Your task to perform on an android device: Open accessibility settings Image 0: 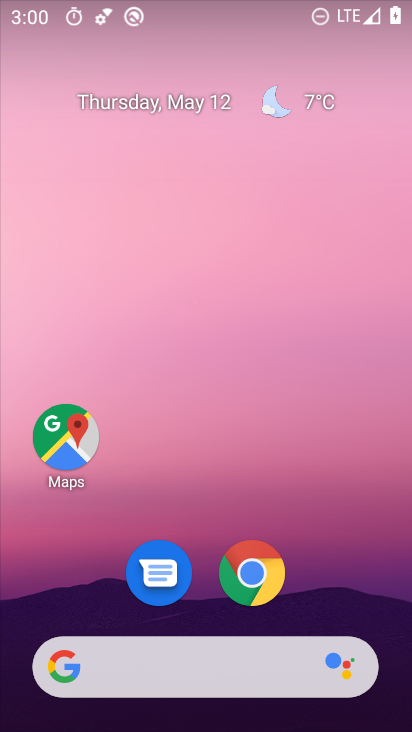
Step 0: drag from (285, 568) to (109, 138)
Your task to perform on an android device: Open accessibility settings Image 1: 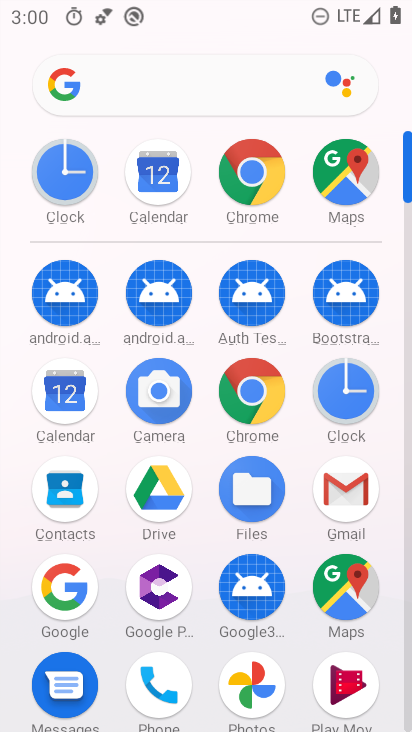
Step 1: drag from (283, 224) to (331, 621)
Your task to perform on an android device: Open accessibility settings Image 2: 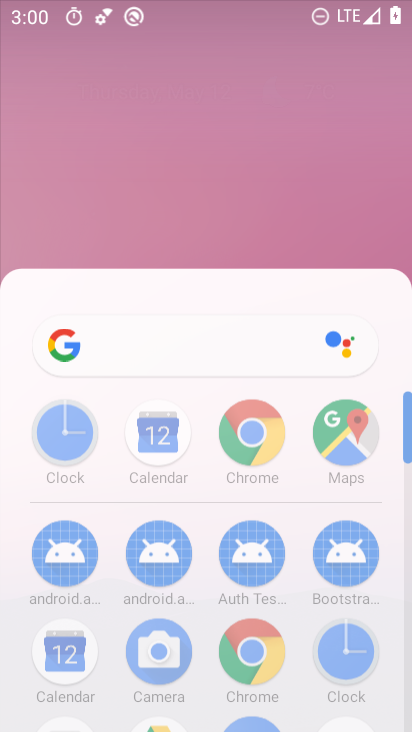
Step 2: drag from (267, 338) to (324, 629)
Your task to perform on an android device: Open accessibility settings Image 3: 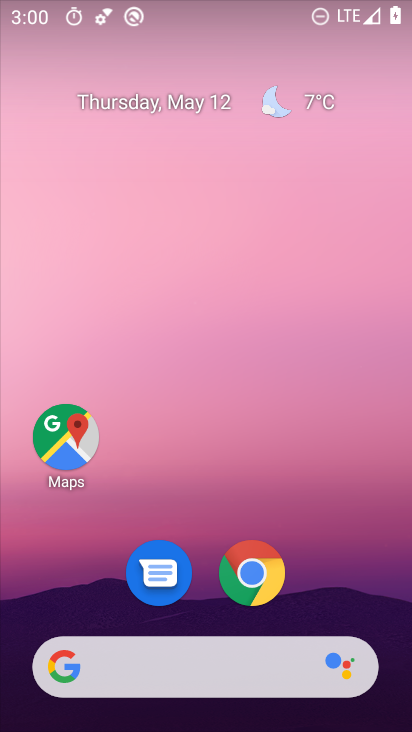
Step 3: drag from (322, 641) to (222, 111)
Your task to perform on an android device: Open accessibility settings Image 4: 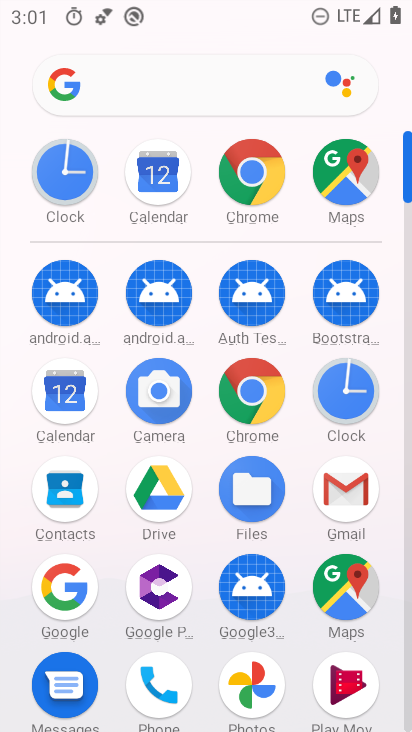
Step 4: drag from (284, 479) to (258, 163)
Your task to perform on an android device: Open accessibility settings Image 5: 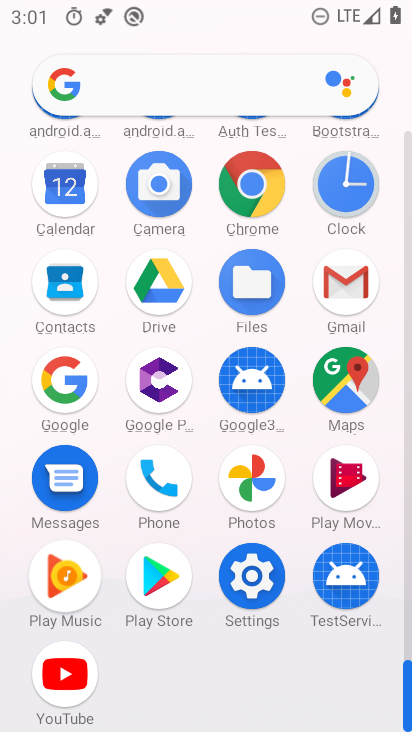
Step 5: drag from (282, 496) to (231, 242)
Your task to perform on an android device: Open accessibility settings Image 6: 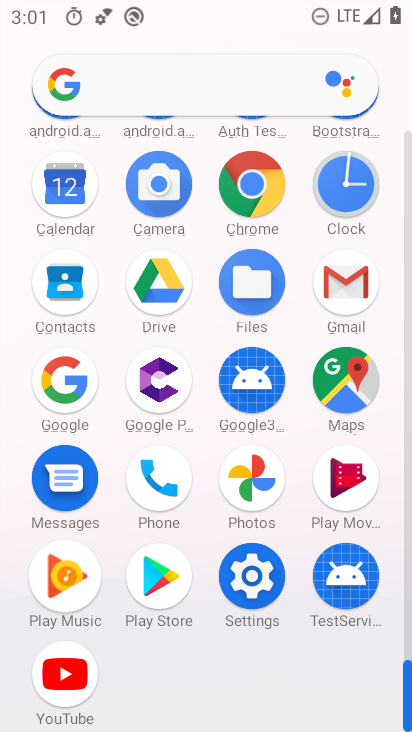
Step 6: click (259, 584)
Your task to perform on an android device: Open accessibility settings Image 7: 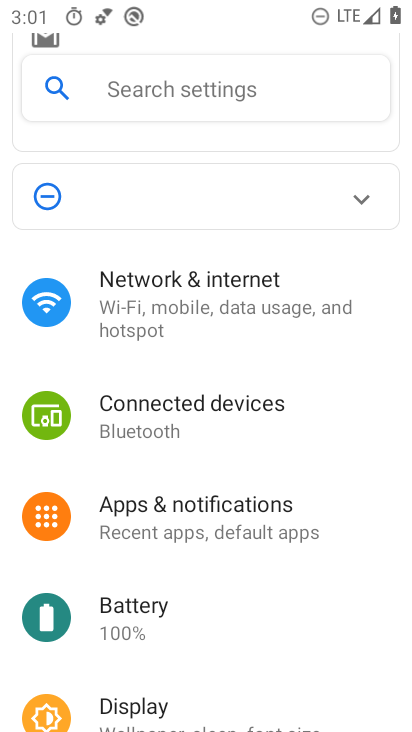
Step 7: drag from (221, 569) to (187, 95)
Your task to perform on an android device: Open accessibility settings Image 8: 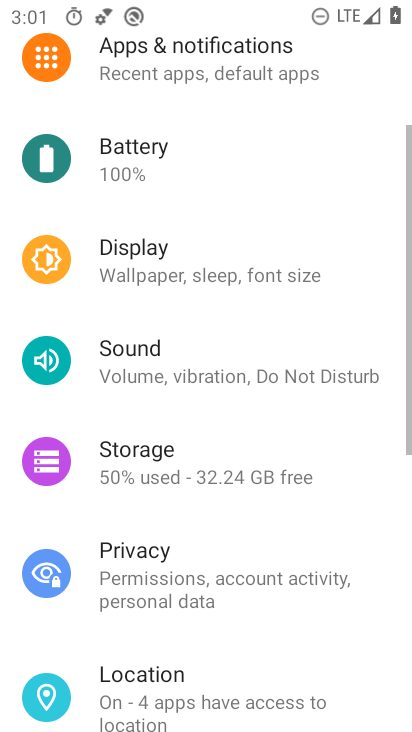
Step 8: drag from (230, 289) to (227, 175)
Your task to perform on an android device: Open accessibility settings Image 9: 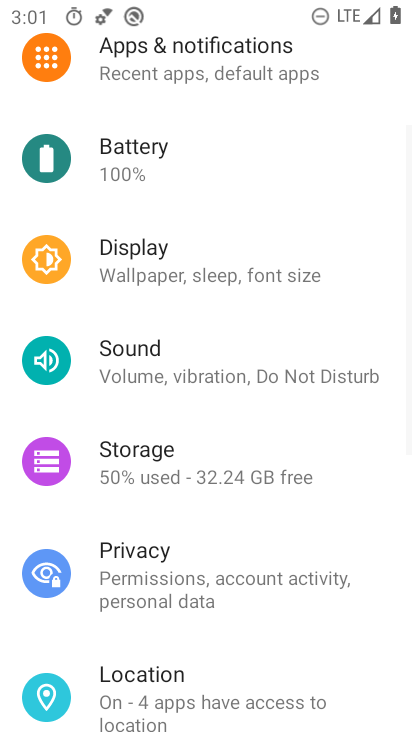
Step 9: drag from (164, 437) to (148, 218)
Your task to perform on an android device: Open accessibility settings Image 10: 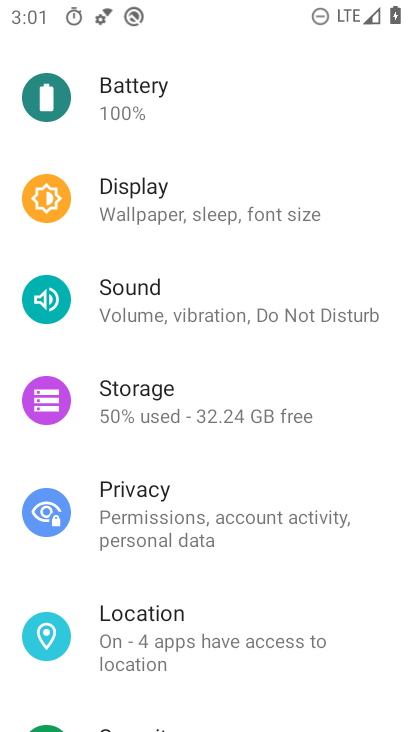
Step 10: drag from (170, 248) to (209, 681)
Your task to perform on an android device: Open accessibility settings Image 11: 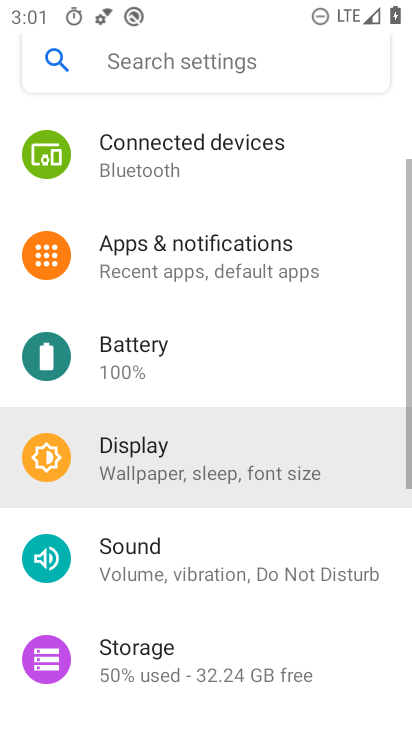
Step 11: drag from (192, 320) to (231, 603)
Your task to perform on an android device: Open accessibility settings Image 12: 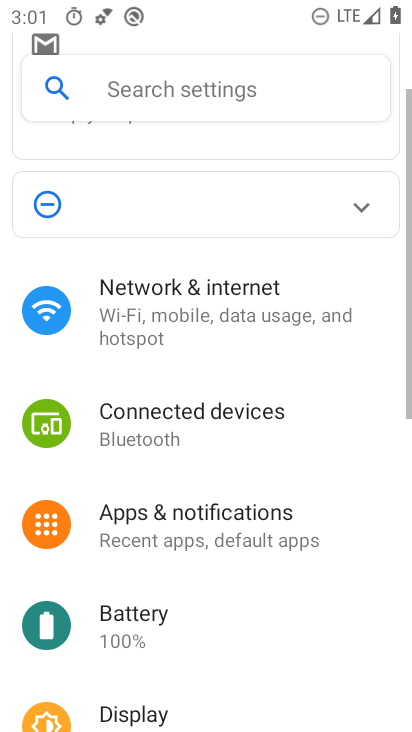
Step 12: drag from (168, 355) to (215, 610)
Your task to perform on an android device: Open accessibility settings Image 13: 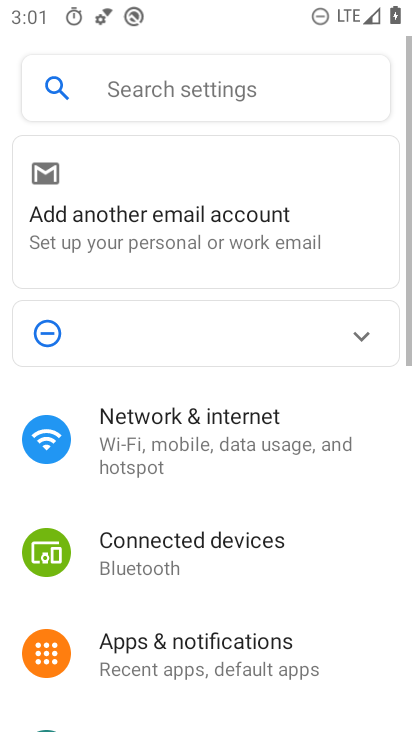
Step 13: click (210, 671)
Your task to perform on an android device: Open accessibility settings Image 14: 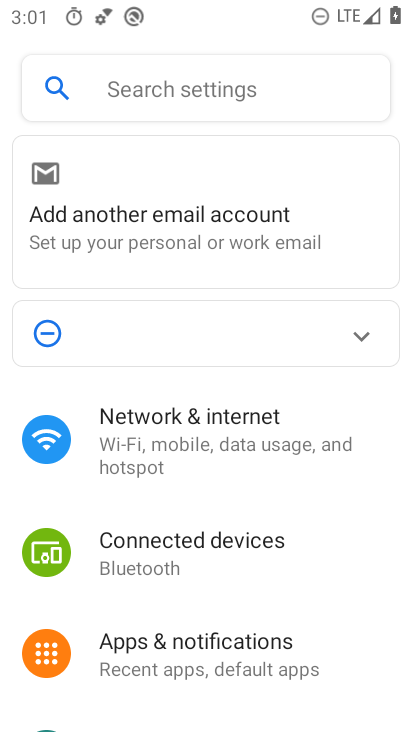
Step 14: drag from (207, 618) to (151, 155)
Your task to perform on an android device: Open accessibility settings Image 15: 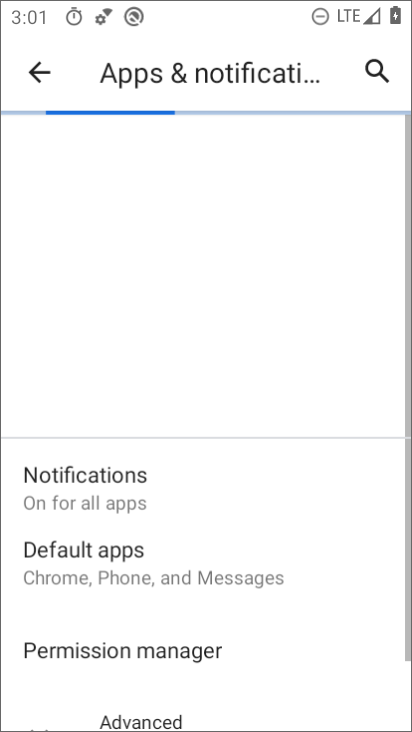
Step 15: drag from (186, 505) to (177, 231)
Your task to perform on an android device: Open accessibility settings Image 16: 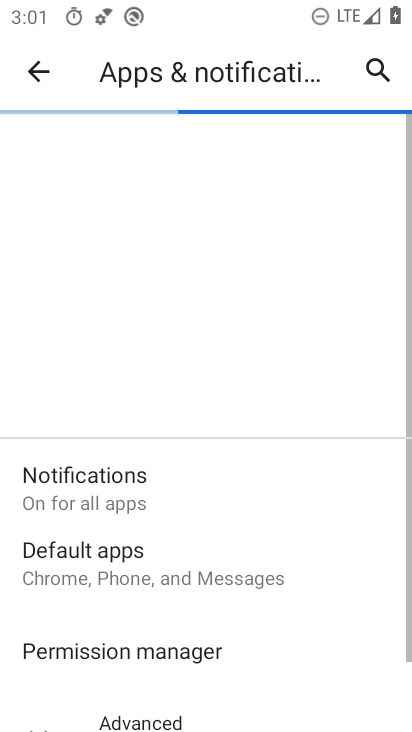
Step 16: drag from (167, 491) to (174, 166)
Your task to perform on an android device: Open accessibility settings Image 17: 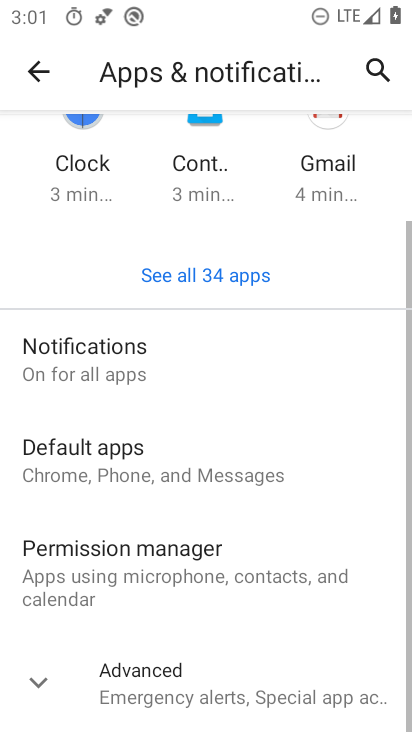
Step 17: click (34, 67)
Your task to perform on an android device: Open accessibility settings Image 18: 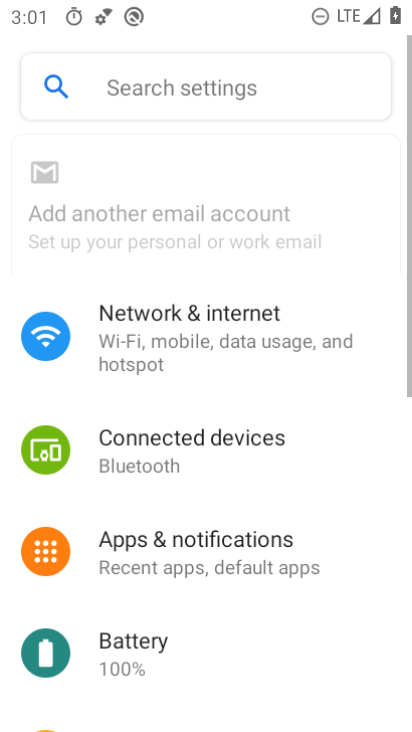
Step 18: drag from (134, 479) to (104, 254)
Your task to perform on an android device: Open accessibility settings Image 19: 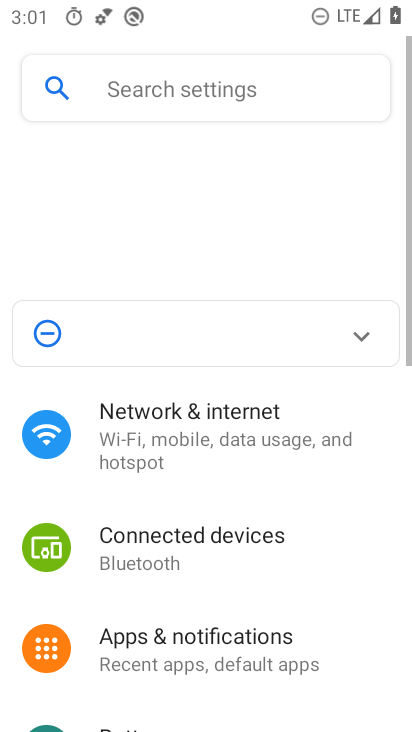
Step 19: drag from (169, 522) to (175, 212)
Your task to perform on an android device: Open accessibility settings Image 20: 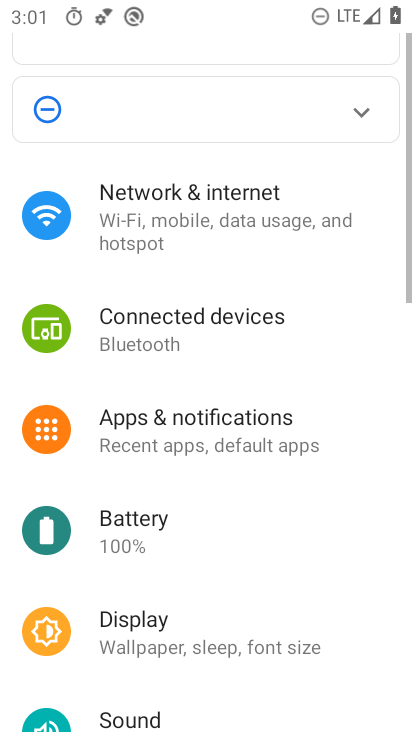
Step 20: drag from (200, 500) to (155, 273)
Your task to perform on an android device: Open accessibility settings Image 21: 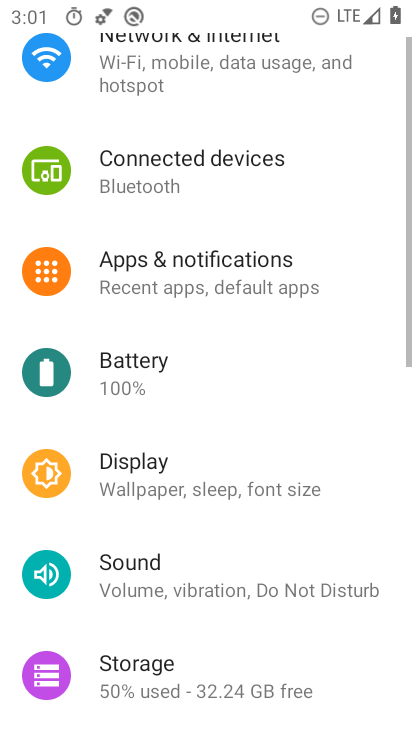
Step 21: drag from (196, 481) to (196, 306)
Your task to perform on an android device: Open accessibility settings Image 22: 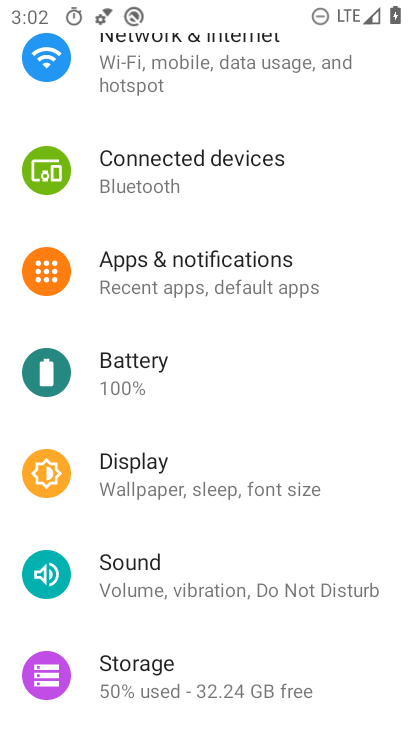
Step 22: drag from (179, 480) to (176, 345)
Your task to perform on an android device: Open accessibility settings Image 23: 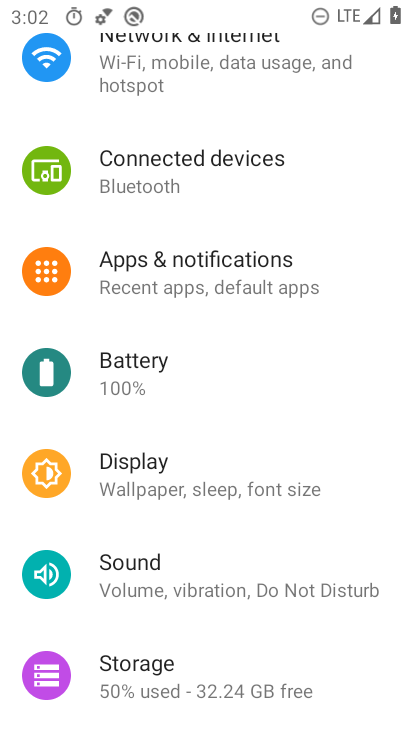
Step 23: drag from (178, 581) to (163, 501)
Your task to perform on an android device: Open accessibility settings Image 24: 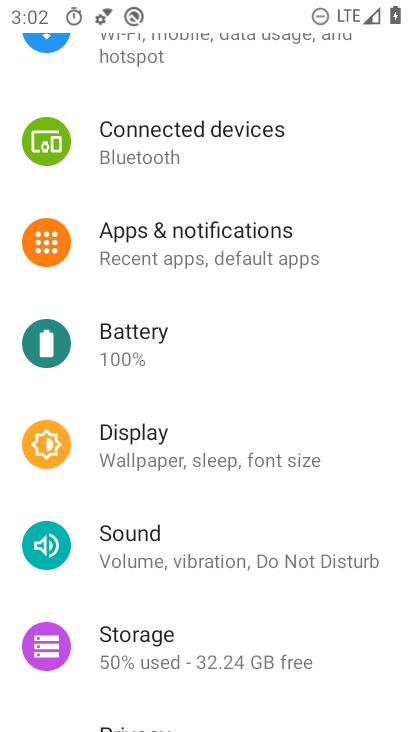
Step 24: drag from (221, 650) to (198, 262)
Your task to perform on an android device: Open accessibility settings Image 25: 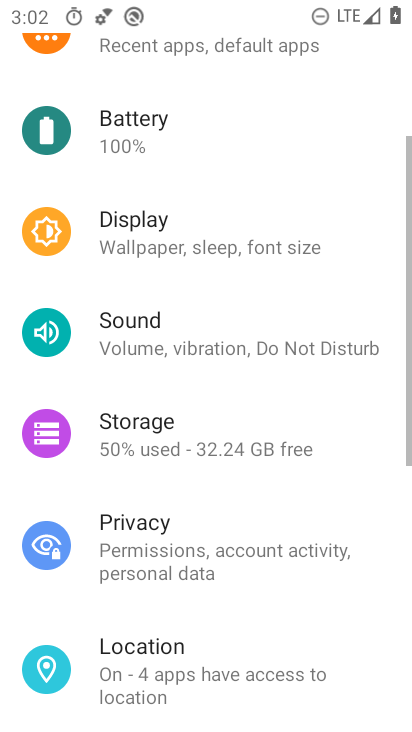
Step 25: drag from (188, 407) to (173, 198)
Your task to perform on an android device: Open accessibility settings Image 26: 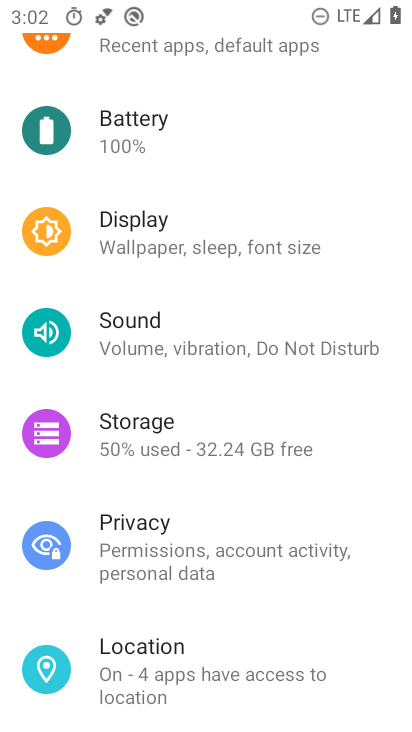
Step 26: drag from (199, 581) to (239, 198)
Your task to perform on an android device: Open accessibility settings Image 27: 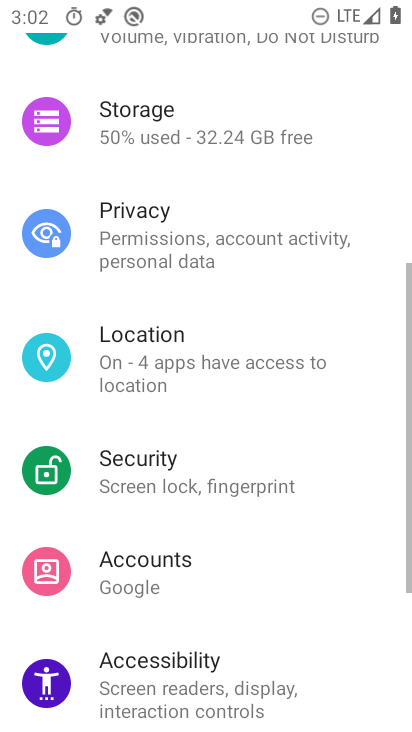
Step 27: drag from (270, 545) to (232, 263)
Your task to perform on an android device: Open accessibility settings Image 28: 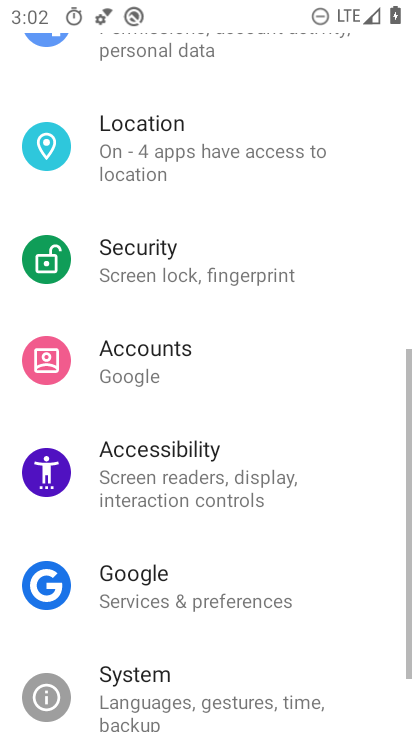
Step 28: drag from (154, 595) to (119, 114)
Your task to perform on an android device: Open accessibility settings Image 29: 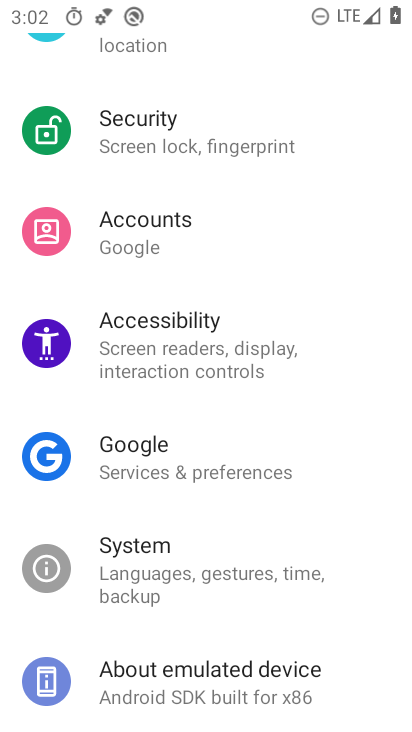
Step 29: click (143, 342)
Your task to perform on an android device: Open accessibility settings Image 30: 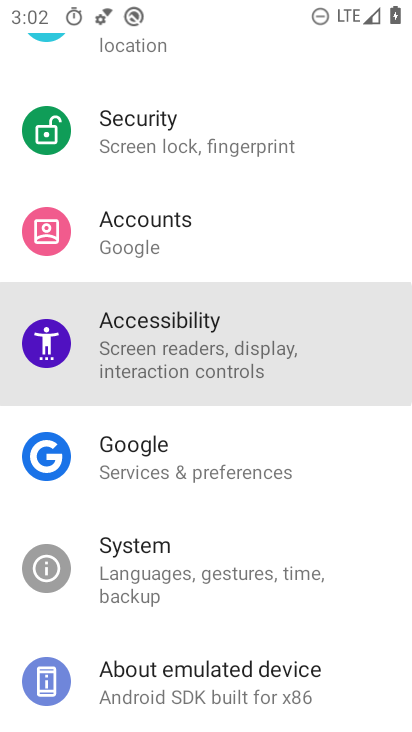
Step 30: click (138, 344)
Your task to perform on an android device: Open accessibility settings Image 31: 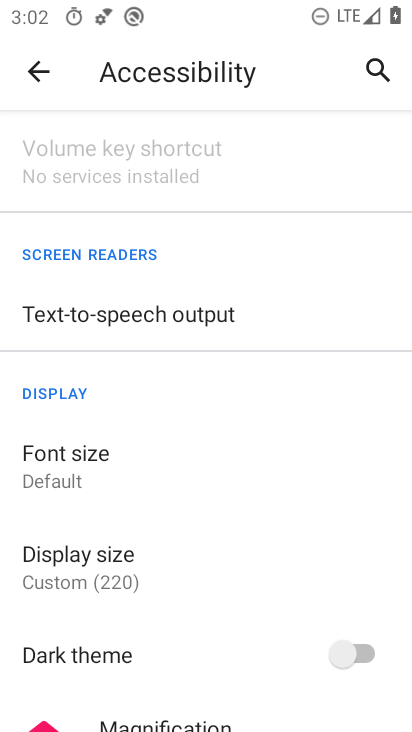
Step 31: task complete